Your task to perform on an android device: turn off javascript in the chrome app Image 0: 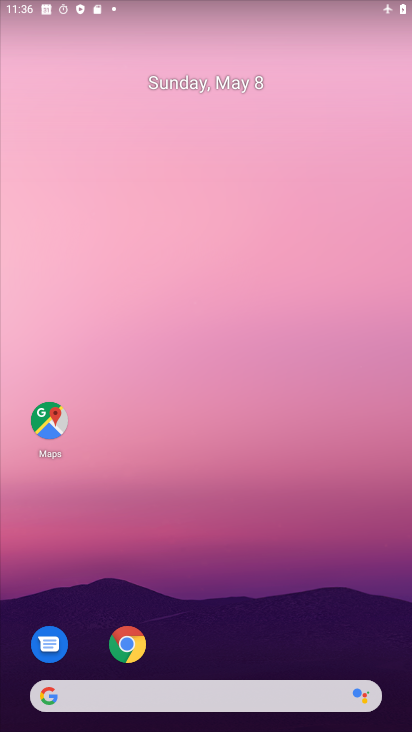
Step 0: drag from (217, 615) to (307, 90)
Your task to perform on an android device: turn off javascript in the chrome app Image 1: 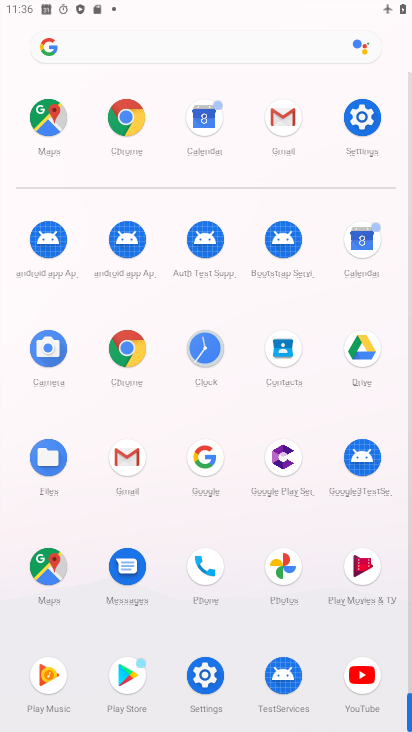
Step 1: click (130, 349)
Your task to perform on an android device: turn off javascript in the chrome app Image 2: 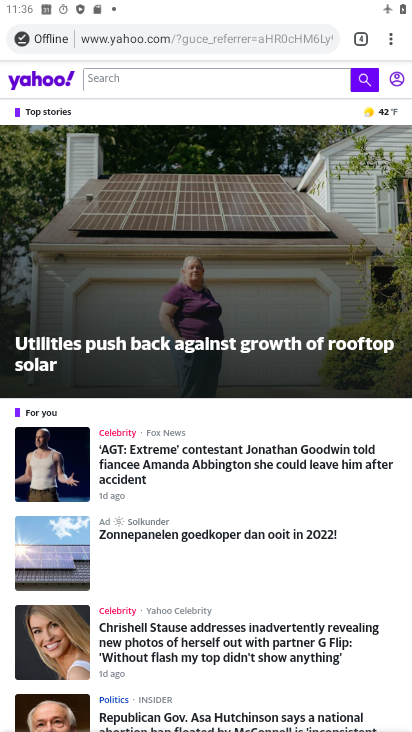
Step 2: click (390, 40)
Your task to perform on an android device: turn off javascript in the chrome app Image 3: 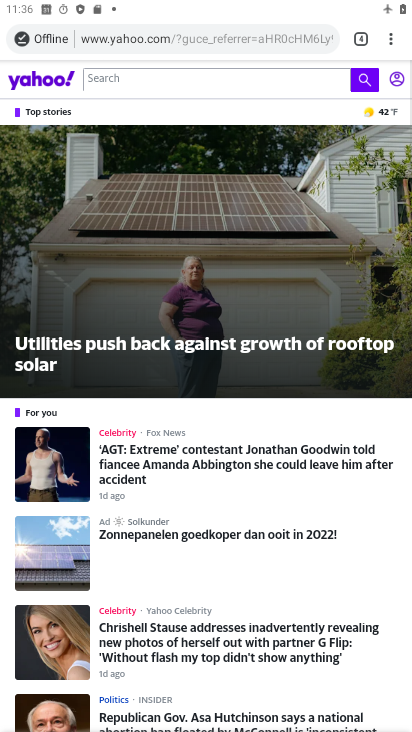
Step 3: drag from (390, 41) to (280, 477)
Your task to perform on an android device: turn off javascript in the chrome app Image 4: 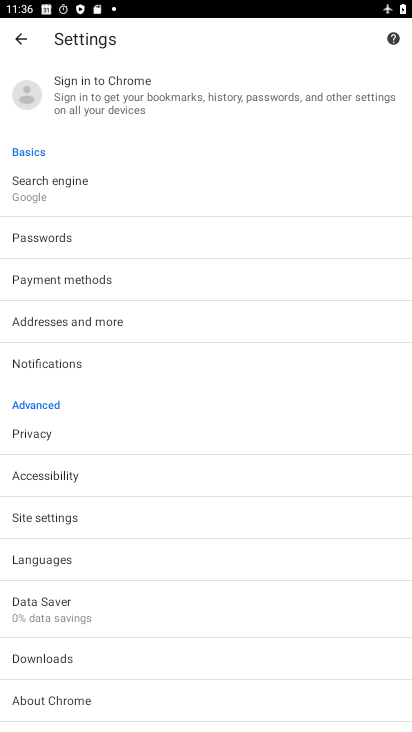
Step 4: click (77, 517)
Your task to perform on an android device: turn off javascript in the chrome app Image 5: 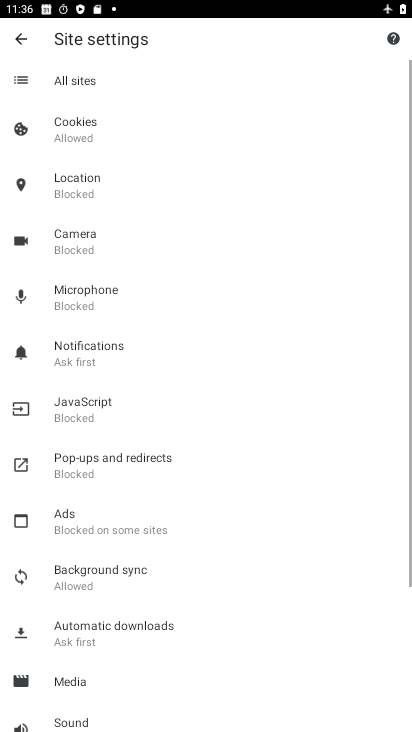
Step 5: click (120, 404)
Your task to perform on an android device: turn off javascript in the chrome app Image 6: 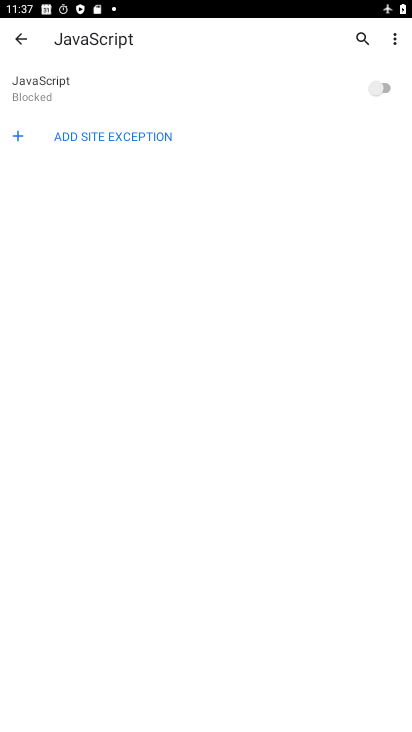
Step 6: task complete